Your task to perform on an android device: clear history in the chrome app Image 0: 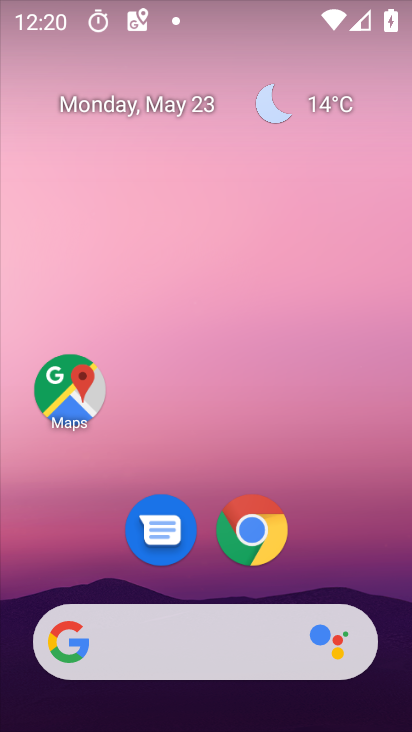
Step 0: click (275, 533)
Your task to perform on an android device: clear history in the chrome app Image 1: 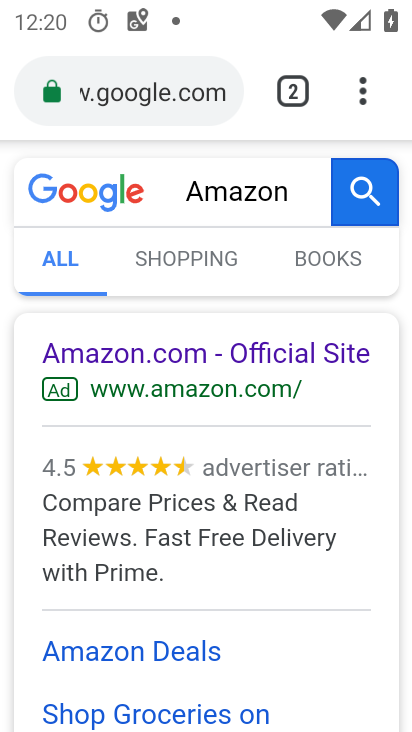
Step 1: click (360, 95)
Your task to perform on an android device: clear history in the chrome app Image 2: 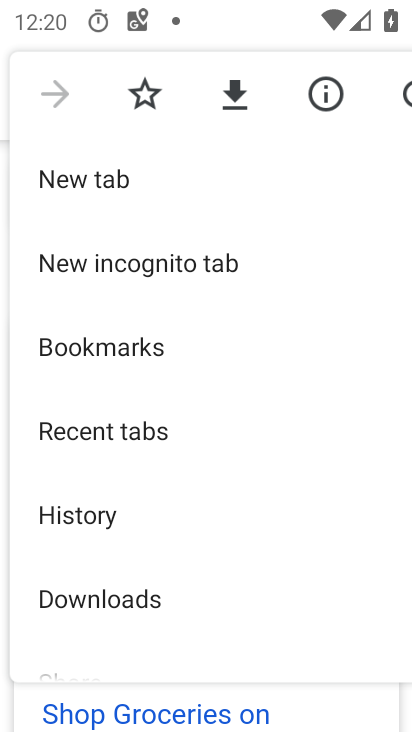
Step 2: click (62, 524)
Your task to perform on an android device: clear history in the chrome app Image 3: 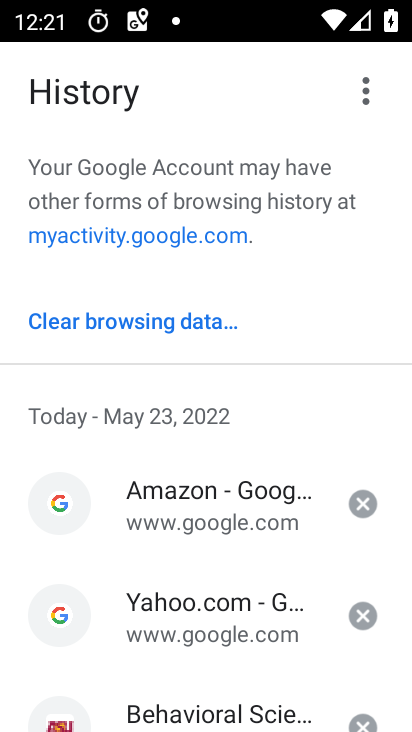
Step 3: click (168, 324)
Your task to perform on an android device: clear history in the chrome app Image 4: 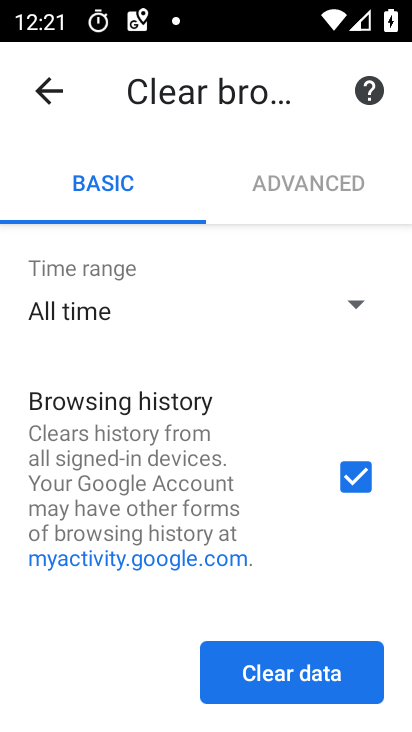
Step 4: click (276, 668)
Your task to perform on an android device: clear history in the chrome app Image 5: 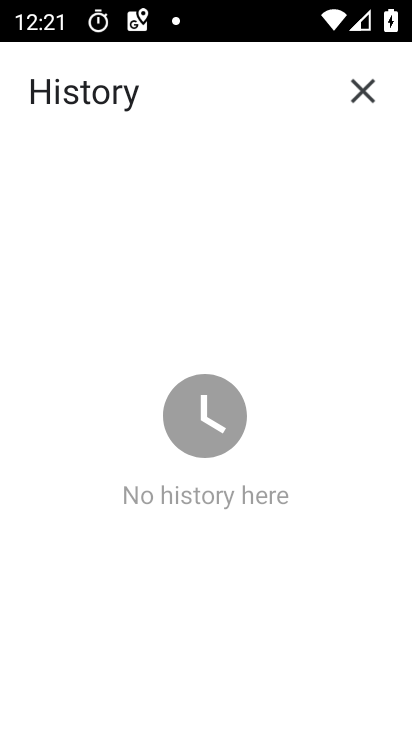
Step 5: task complete